Your task to perform on an android device: Search for Italian restaurants on Maps Image 0: 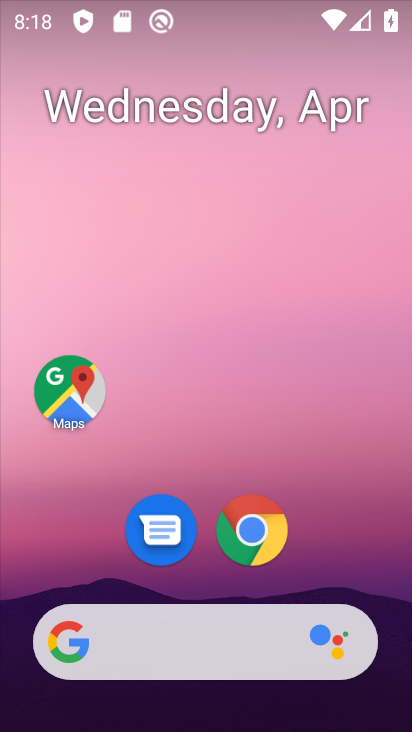
Step 0: drag from (386, 573) to (340, 177)
Your task to perform on an android device: Search for Italian restaurants on Maps Image 1: 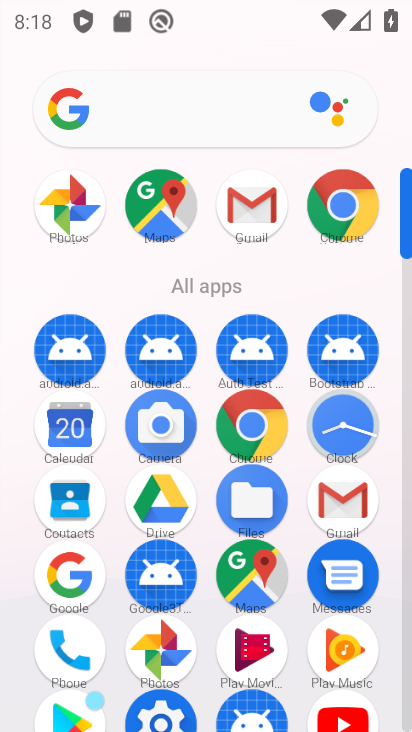
Step 1: click (183, 213)
Your task to perform on an android device: Search for Italian restaurants on Maps Image 2: 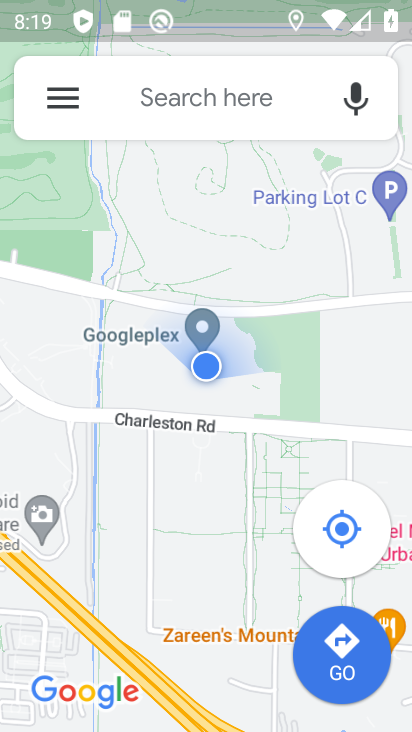
Step 2: click (183, 113)
Your task to perform on an android device: Search for Italian restaurants on Maps Image 3: 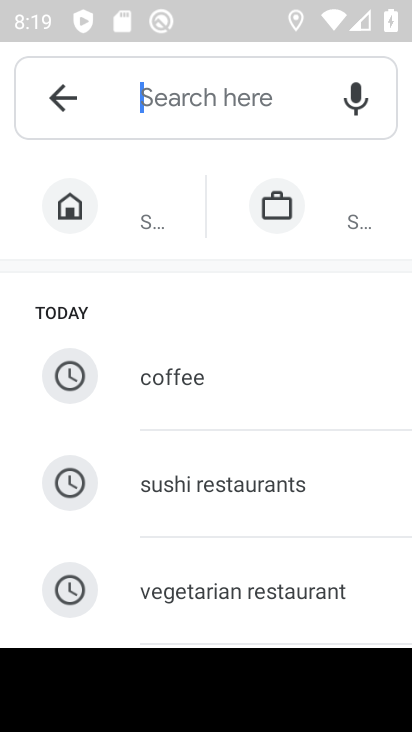
Step 3: type "Italian restauraants"
Your task to perform on an android device: Search for Italian restaurants on Maps Image 4: 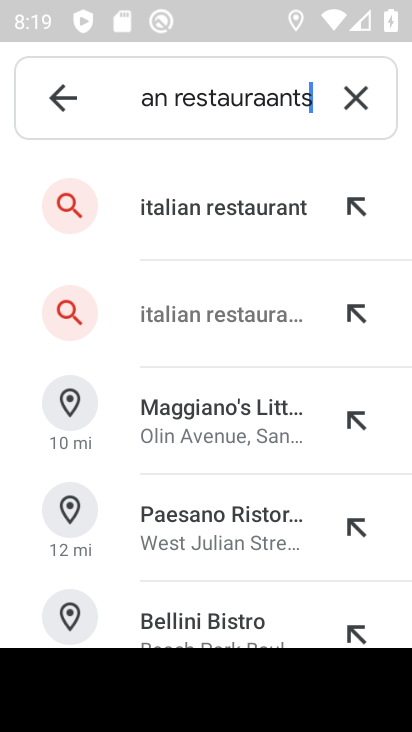
Step 4: click (289, 212)
Your task to perform on an android device: Search for Italian restaurants on Maps Image 5: 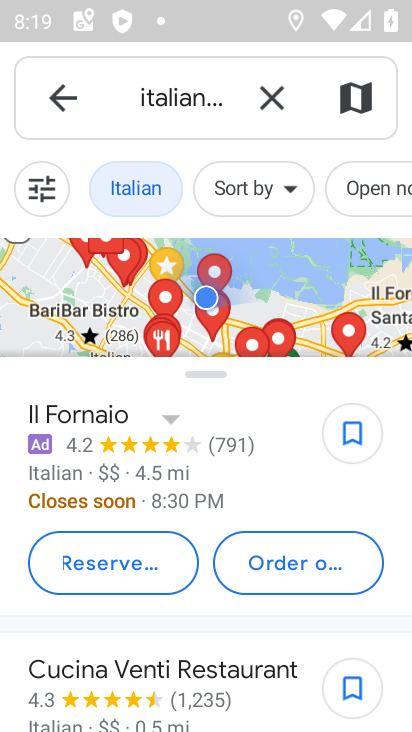
Step 5: task complete